Your task to perform on an android device: turn off priority inbox in the gmail app Image 0: 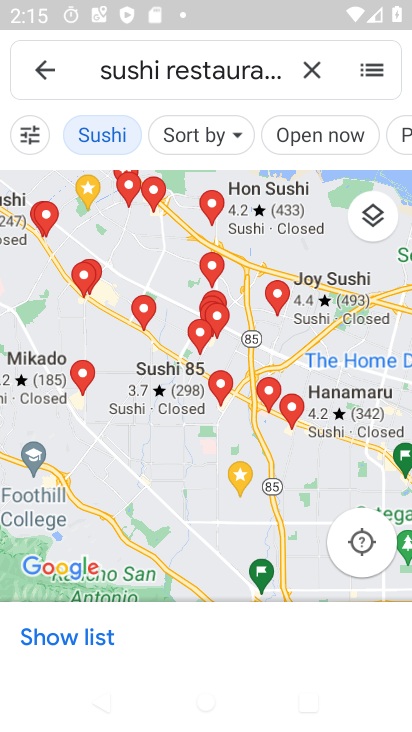
Step 0: press home button
Your task to perform on an android device: turn off priority inbox in the gmail app Image 1: 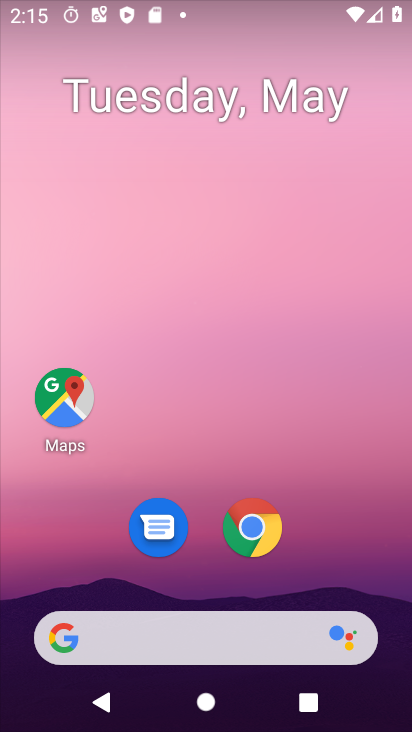
Step 1: drag from (277, 674) to (186, 327)
Your task to perform on an android device: turn off priority inbox in the gmail app Image 2: 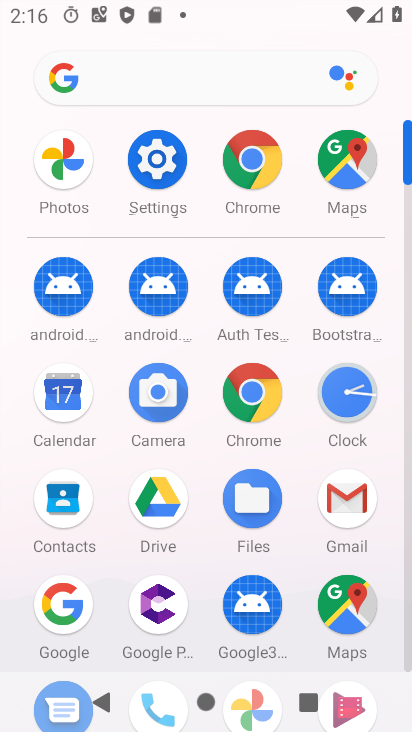
Step 2: click (333, 512)
Your task to perform on an android device: turn off priority inbox in the gmail app Image 3: 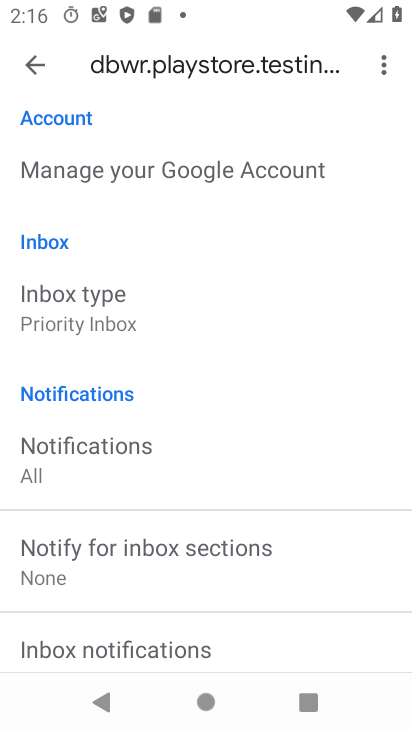
Step 3: click (116, 297)
Your task to perform on an android device: turn off priority inbox in the gmail app Image 4: 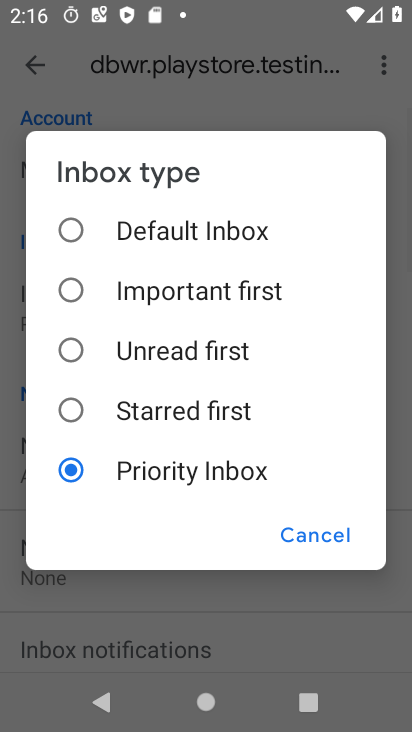
Step 4: click (172, 226)
Your task to perform on an android device: turn off priority inbox in the gmail app Image 5: 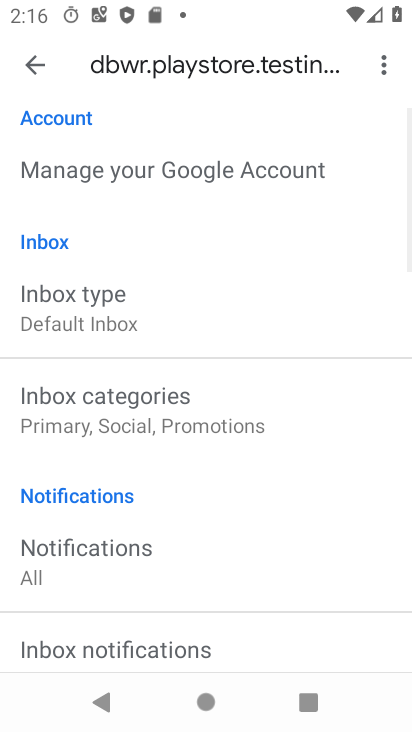
Step 5: task complete